Your task to perform on an android device: Open eBay Image 0: 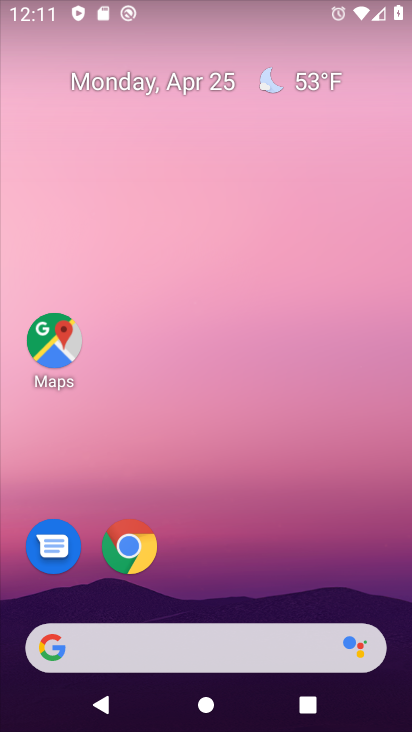
Step 0: click (163, 637)
Your task to perform on an android device: Open eBay Image 1: 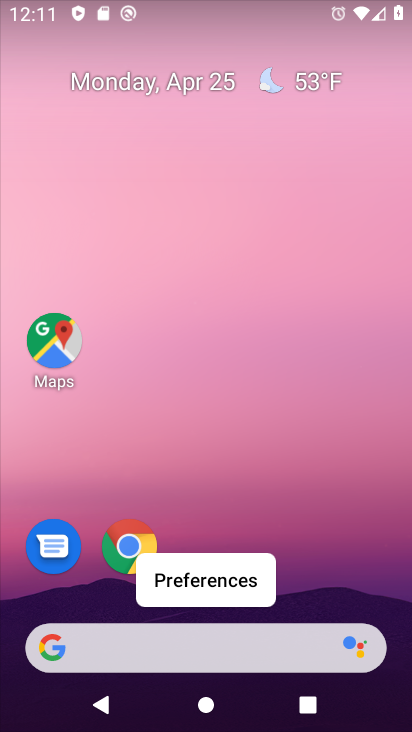
Step 1: click (169, 642)
Your task to perform on an android device: Open eBay Image 2: 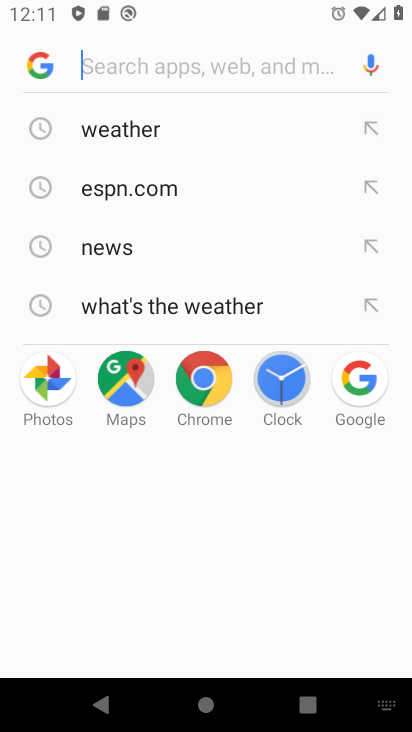
Step 2: type "eBay"
Your task to perform on an android device: Open eBay Image 3: 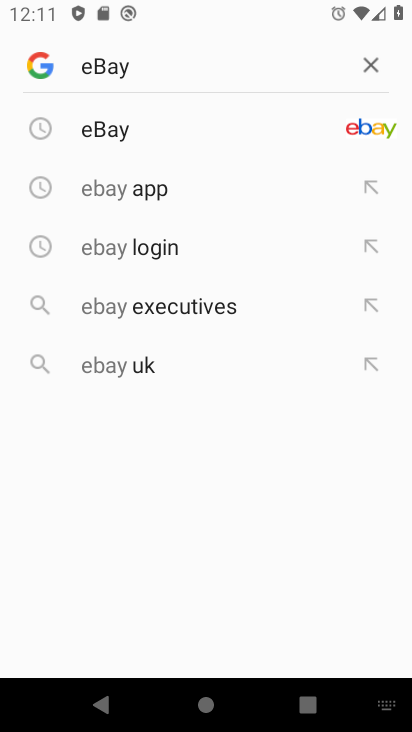
Step 3: click (160, 128)
Your task to perform on an android device: Open eBay Image 4: 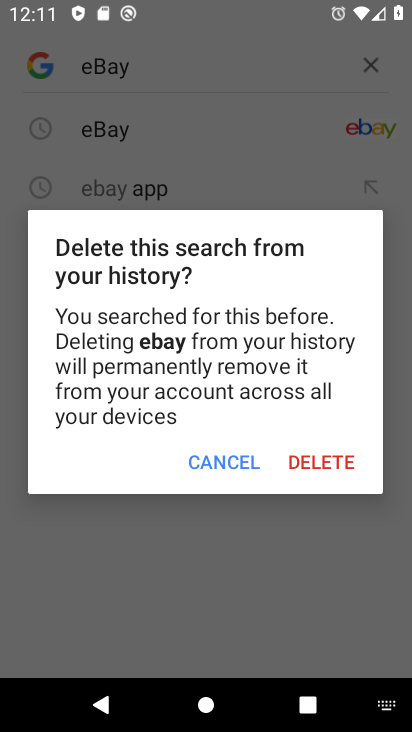
Step 4: click (215, 467)
Your task to perform on an android device: Open eBay Image 5: 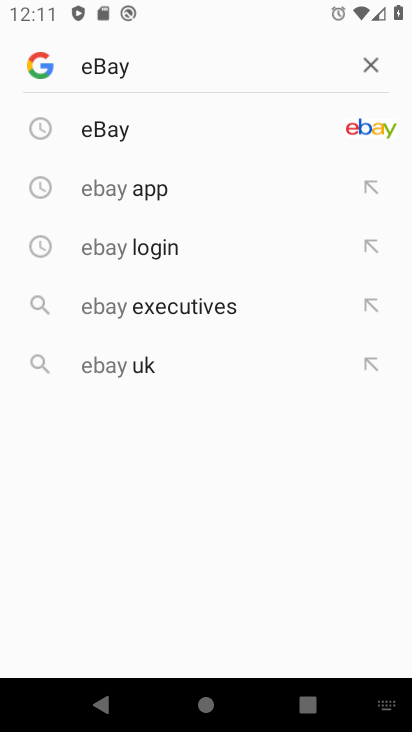
Step 5: click (160, 132)
Your task to perform on an android device: Open eBay Image 6: 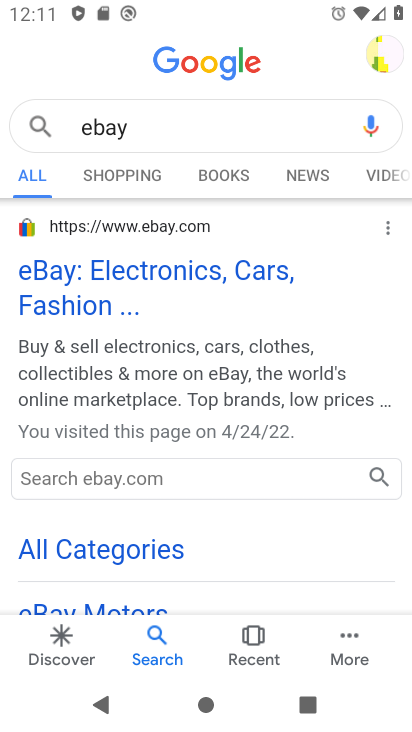
Step 6: click (124, 269)
Your task to perform on an android device: Open eBay Image 7: 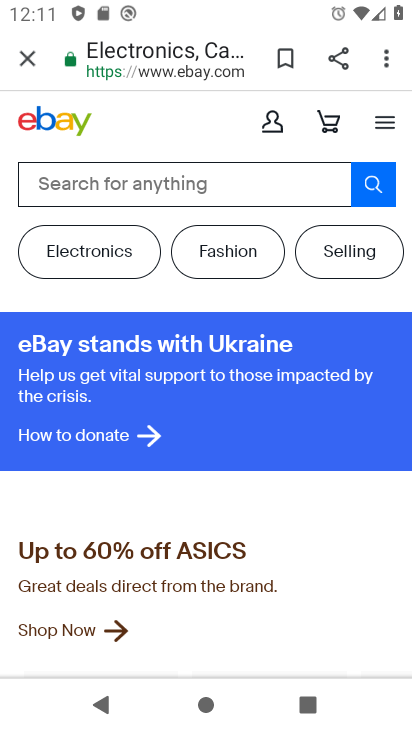
Step 7: task complete